Your task to perform on an android device: turn off location Image 0: 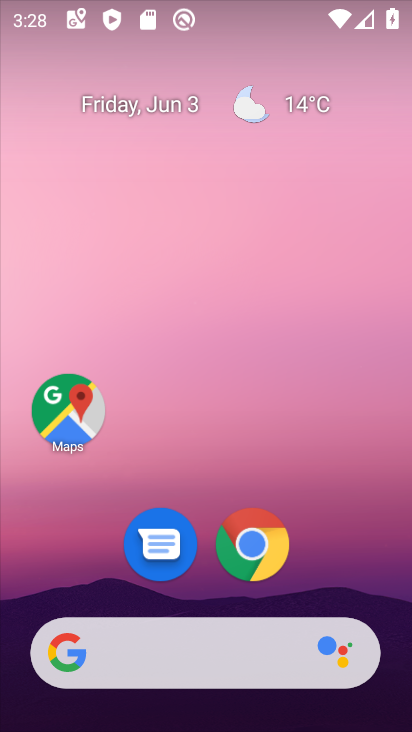
Step 0: drag from (391, 618) to (355, 95)
Your task to perform on an android device: turn off location Image 1: 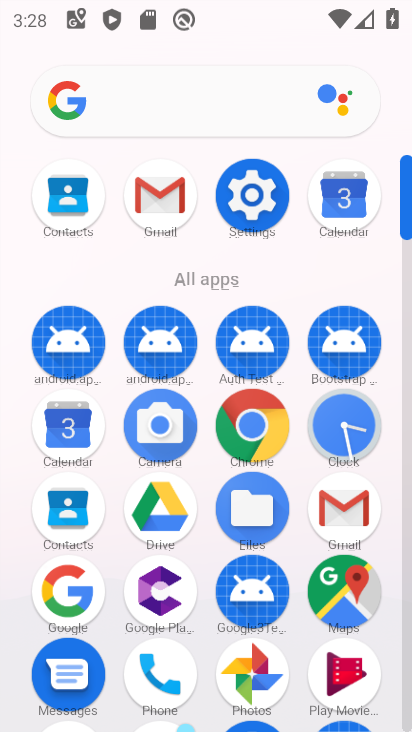
Step 1: click (404, 657)
Your task to perform on an android device: turn off location Image 2: 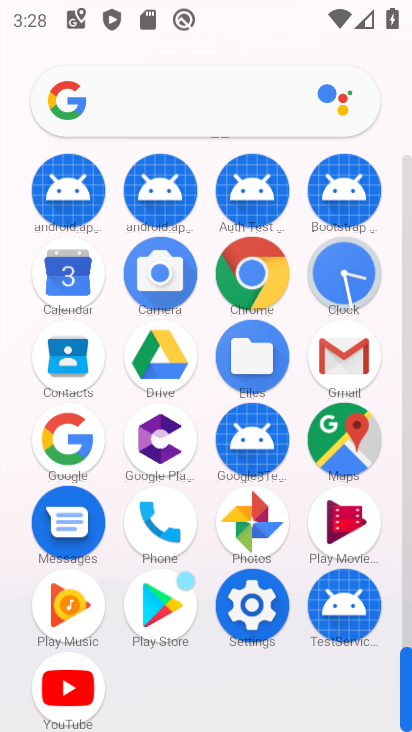
Step 2: click (255, 602)
Your task to perform on an android device: turn off location Image 3: 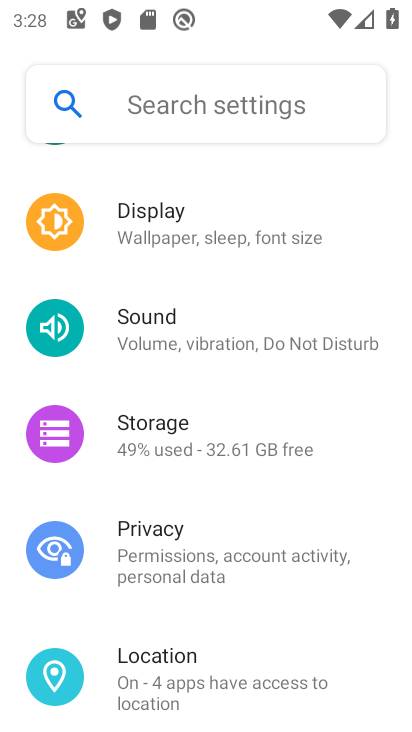
Step 3: click (154, 669)
Your task to perform on an android device: turn off location Image 4: 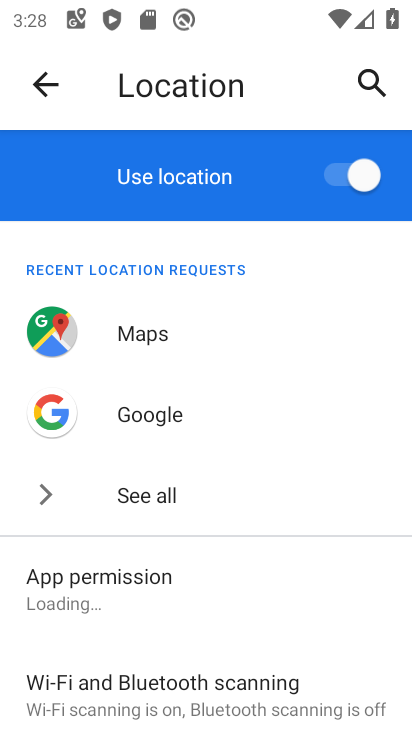
Step 4: click (332, 171)
Your task to perform on an android device: turn off location Image 5: 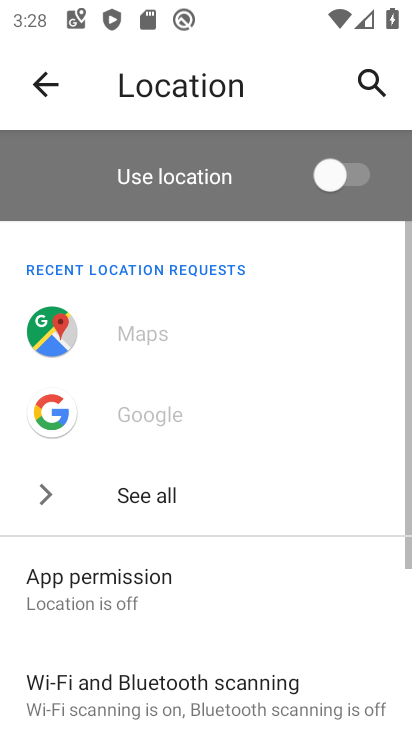
Step 5: task complete